Your task to perform on an android device: Open the calendar app, open the side menu, and click the "Day" option Image 0: 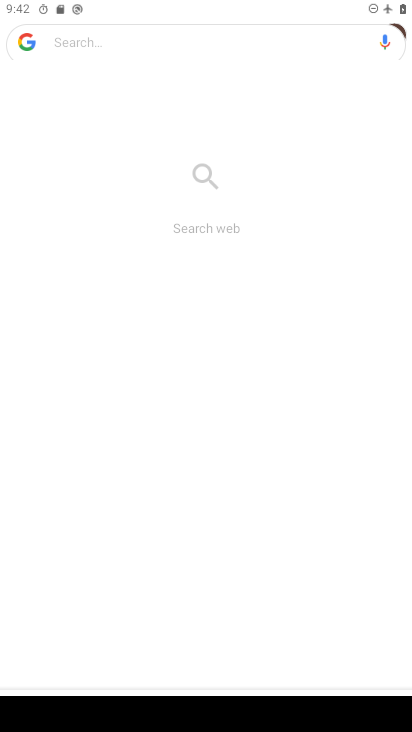
Step 0: press home button
Your task to perform on an android device: Open the calendar app, open the side menu, and click the "Day" option Image 1: 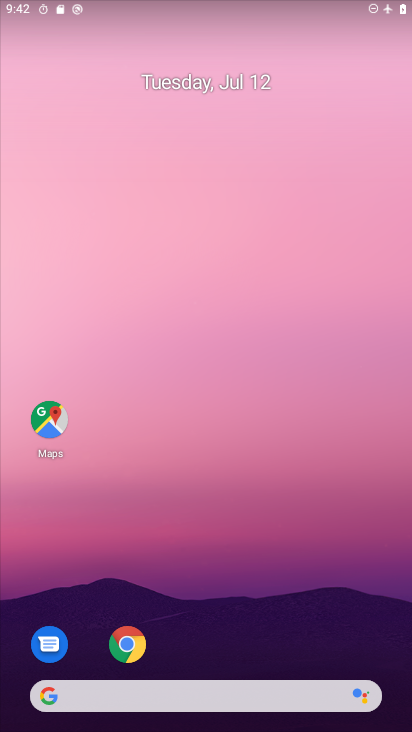
Step 1: click (212, 91)
Your task to perform on an android device: Open the calendar app, open the side menu, and click the "Day" option Image 2: 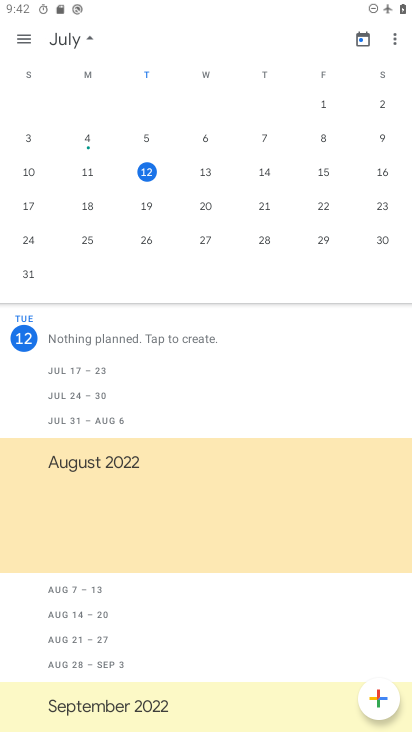
Step 2: press home button
Your task to perform on an android device: Open the calendar app, open the side menu, and click the "Day" option Image 3: 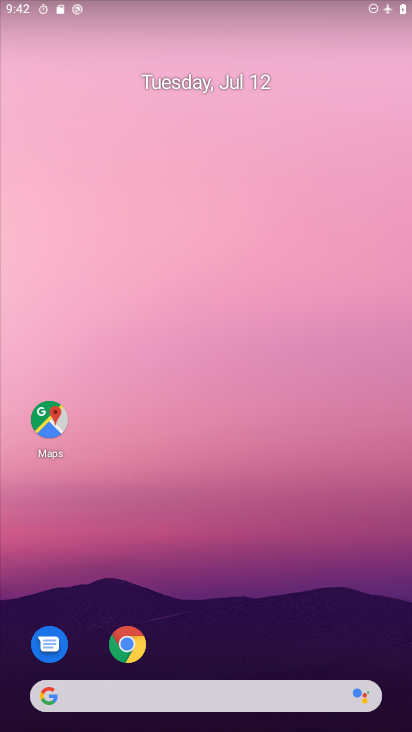
Step 3: drag from (206, 654) to (224, 130)
Your task to perform on an android device: Open the calendar app, open the side menu, and click the "Day" option Image 4: 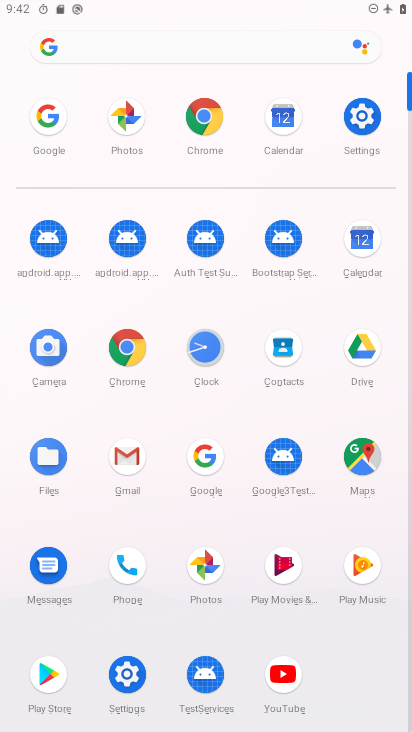
Step 4: click (341, 230)
Your task to perform on an android device: Open the calendar app, open the side menu, and click the "Day" option Image 5: 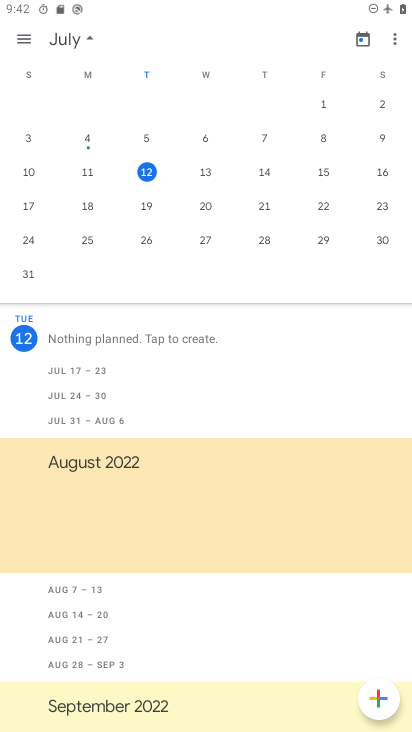
Step 5: click (16, 35)
Your task to perform on an android device: Open the calendar app, open the side menu, and click the "Day" option Image 6: 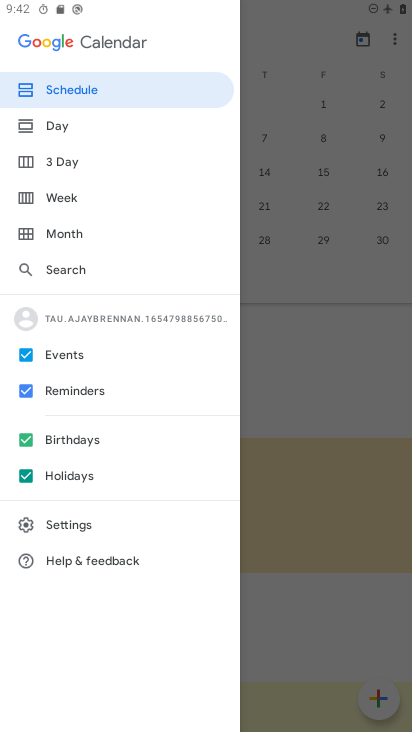
Step 6: click (77, 123)
Your task to perform on an android device: Open the calendar app, open the side menu, and click the "Day" option Image 7: 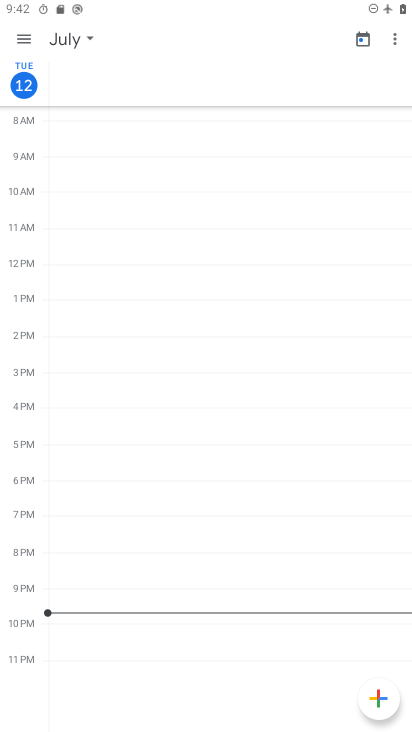
Step 7: task complete